Your task to perform on an android device: add a contact Image 0: 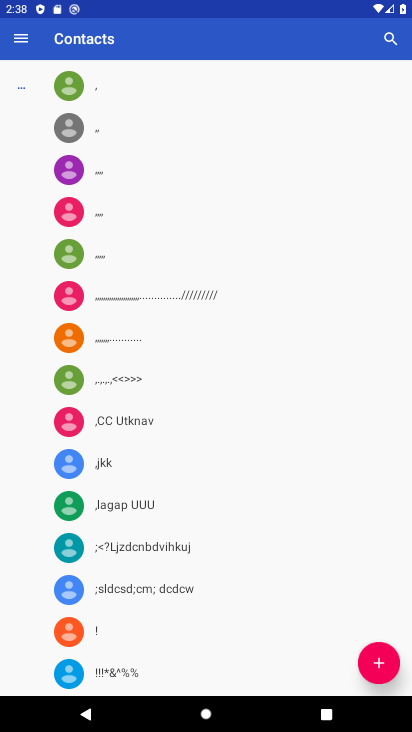
Step 0: press home button
Your task to perform on an android device: add a contact Image 1: 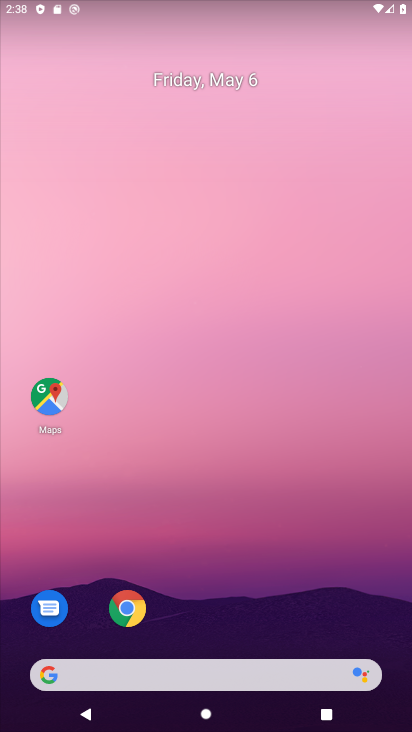
Step 1: drag from (180, 615) to (260, 195)
Your task to perform on an android device: add a contact Image 2: 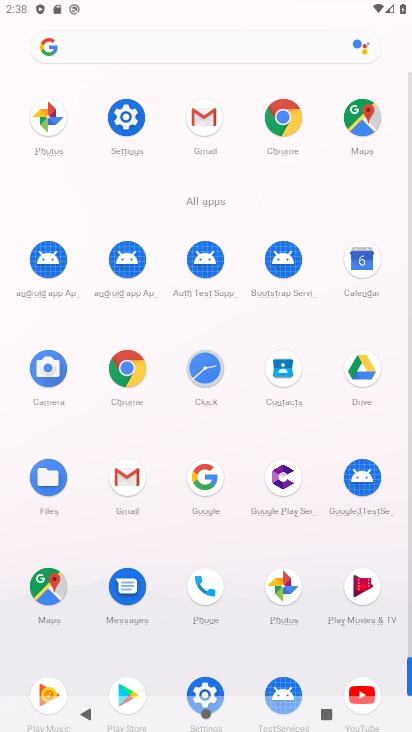
Step 2: click (292, 375)
Your task to perform on an android device: add a contact Image 3: 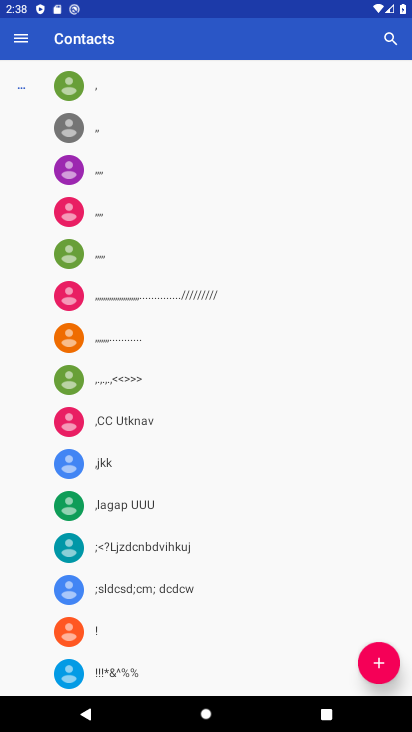
Step 3: click (370, 664)
Your task to perform on an android device: add a contact Image 4: 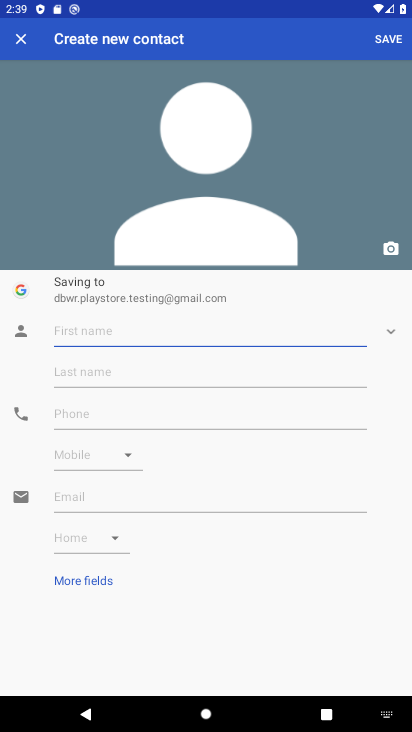
Step 4: type "faefh"
Your task to perform on an android device: add a contact Image 5: 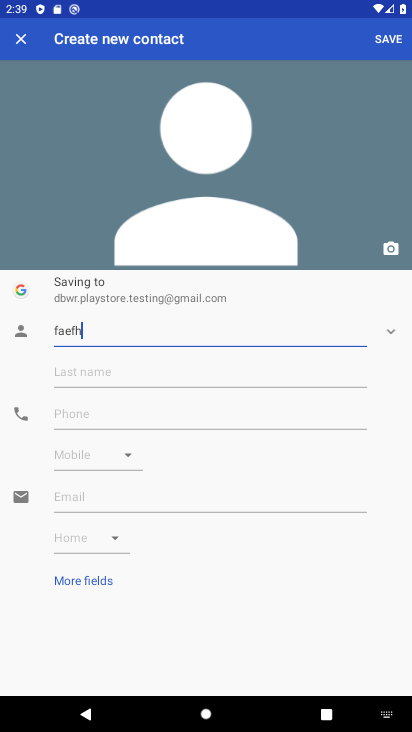
Step 5: click (379, 33)
Your task to perform on an android device: add a contact Image 6: 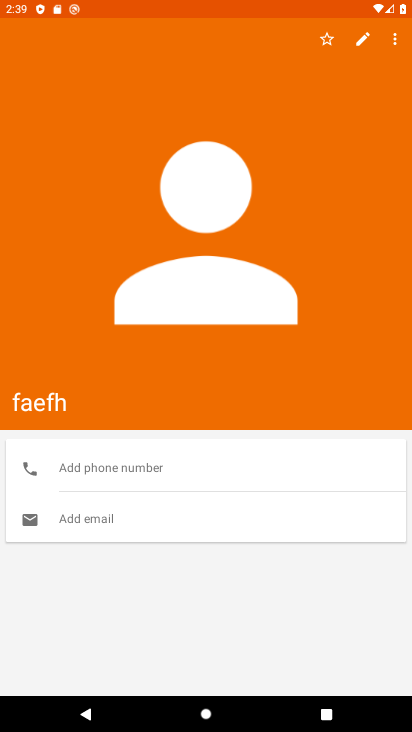
Step 6: task complete